Your task to perform on an android device: change notification settings in the gmail app Image 0: 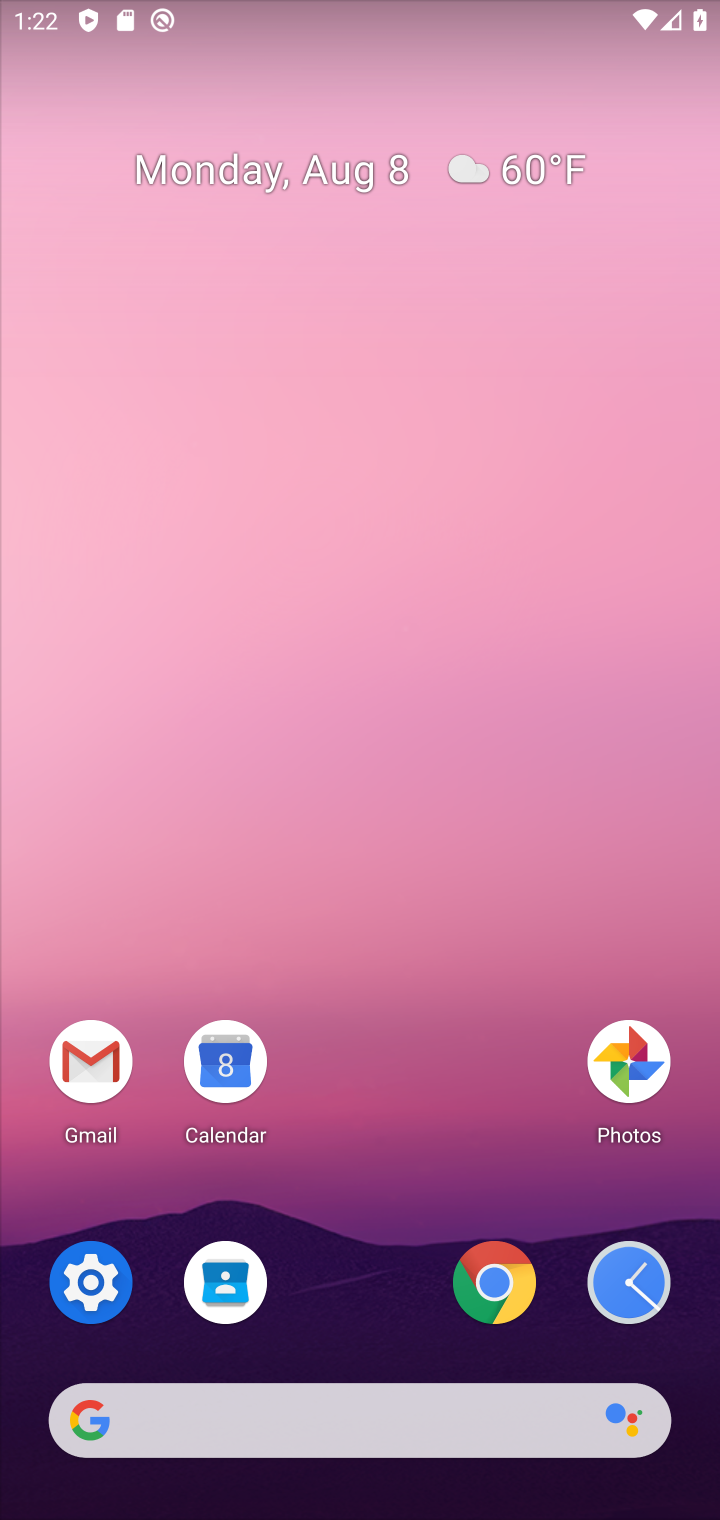
Step 0: click (73, 1058)
Your task to perform on an android device: change notification settings in the gmail app Image 1: 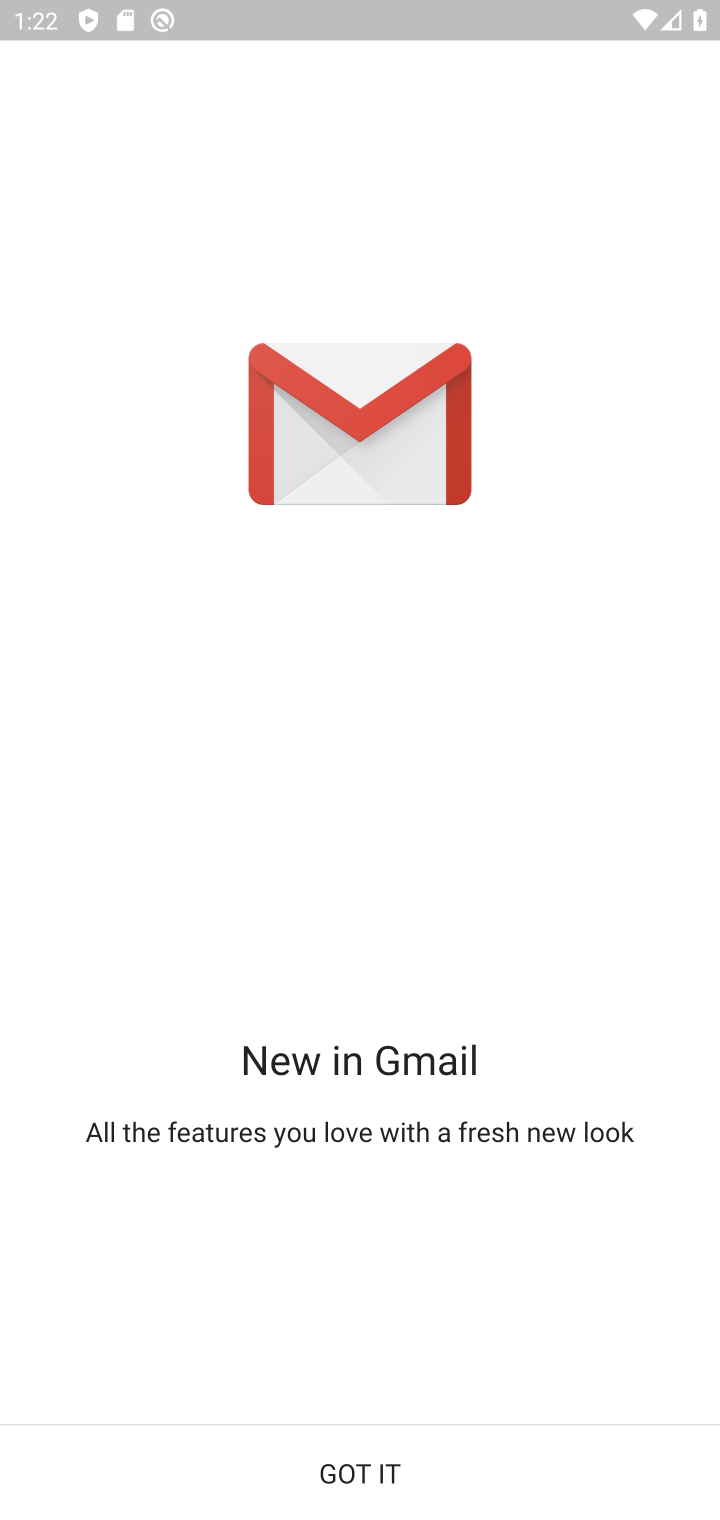
Step 1: click (366, 1465)
Your task to perform on an android device: change notification settings in the gmail app Image 2: 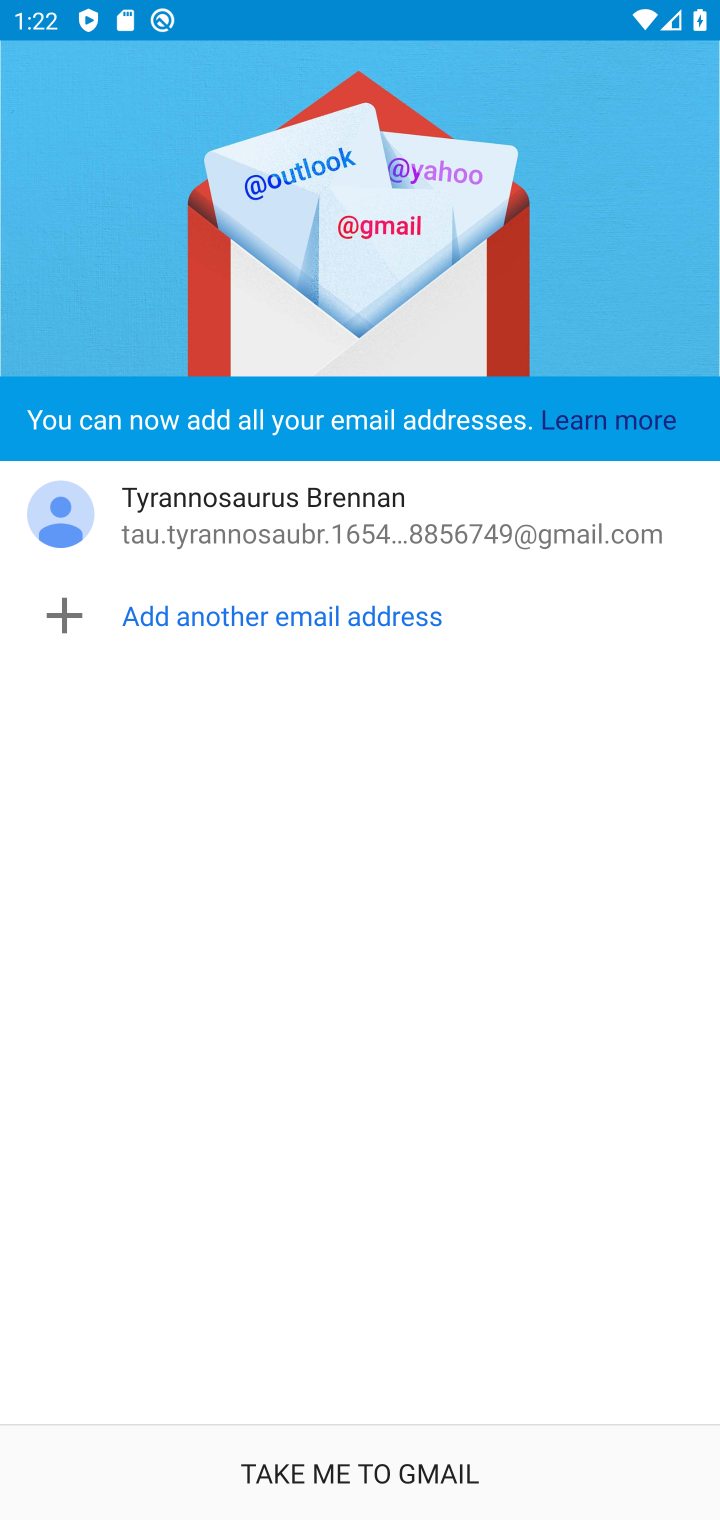
Step 2: click (366, 1465)
Your task to perform on an android device: change notification settings in the gmail app Image 3: 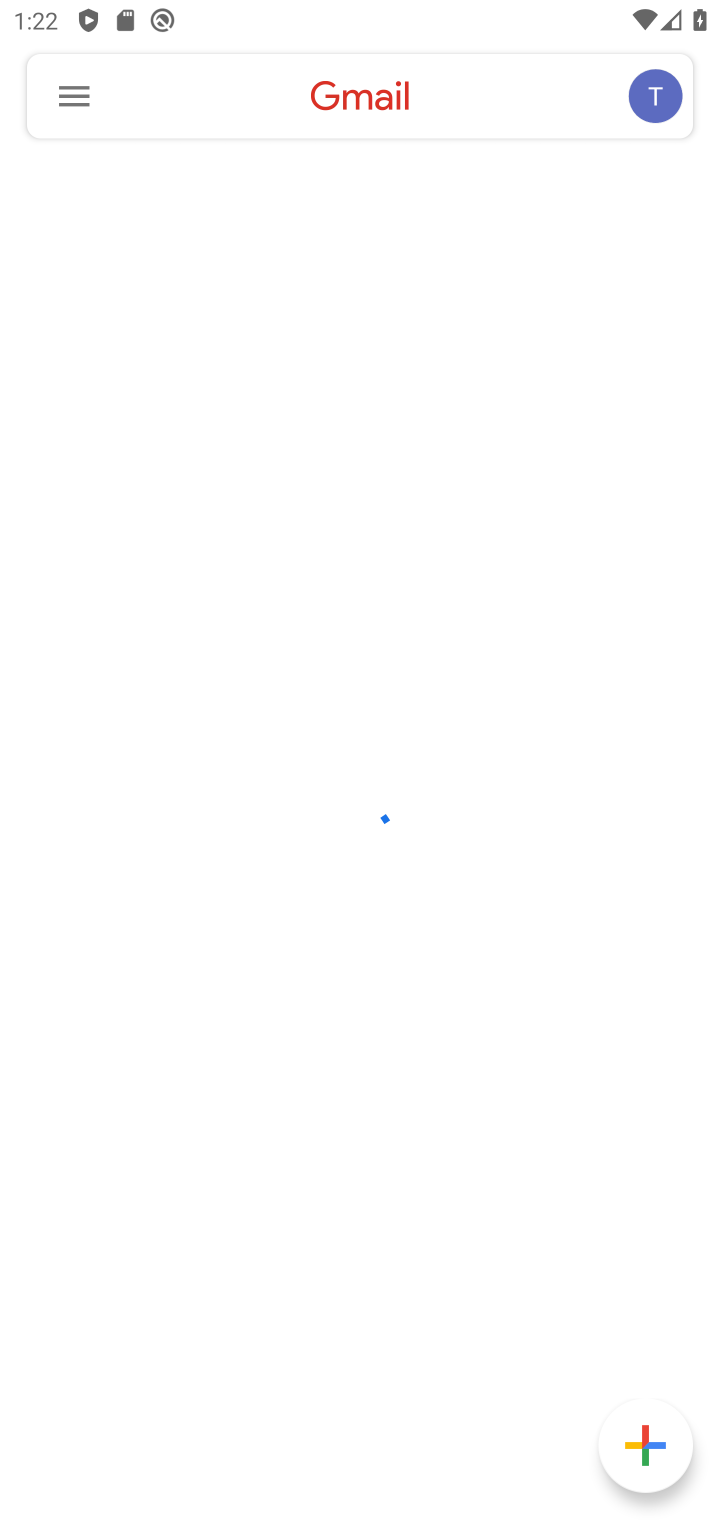
Step 3: click (71, 96)
Your task to perform on an android device: change notification settings in the gmail app Image 4: 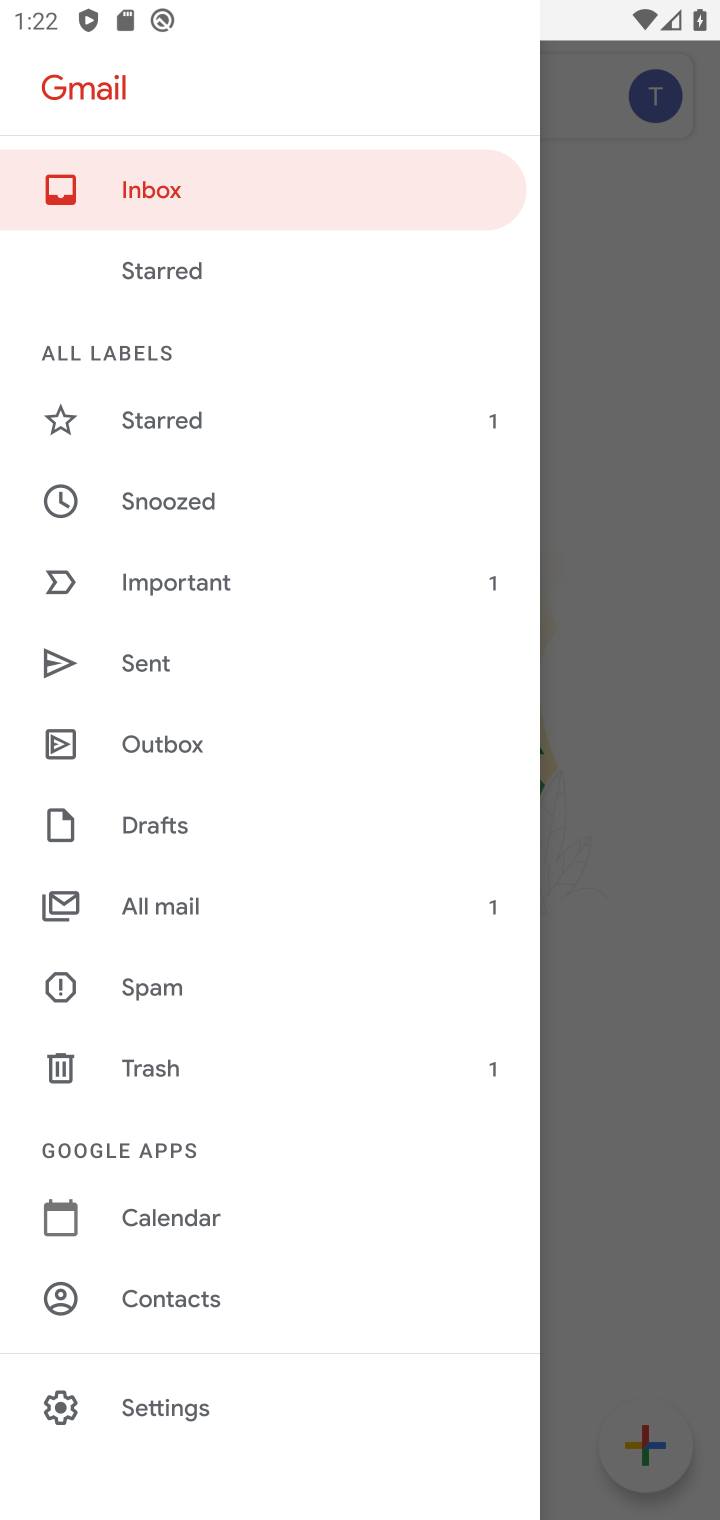
Step 4: click (154, 1401)
Your task to perform on an android device: change notification settings in the gmail app Image 5: 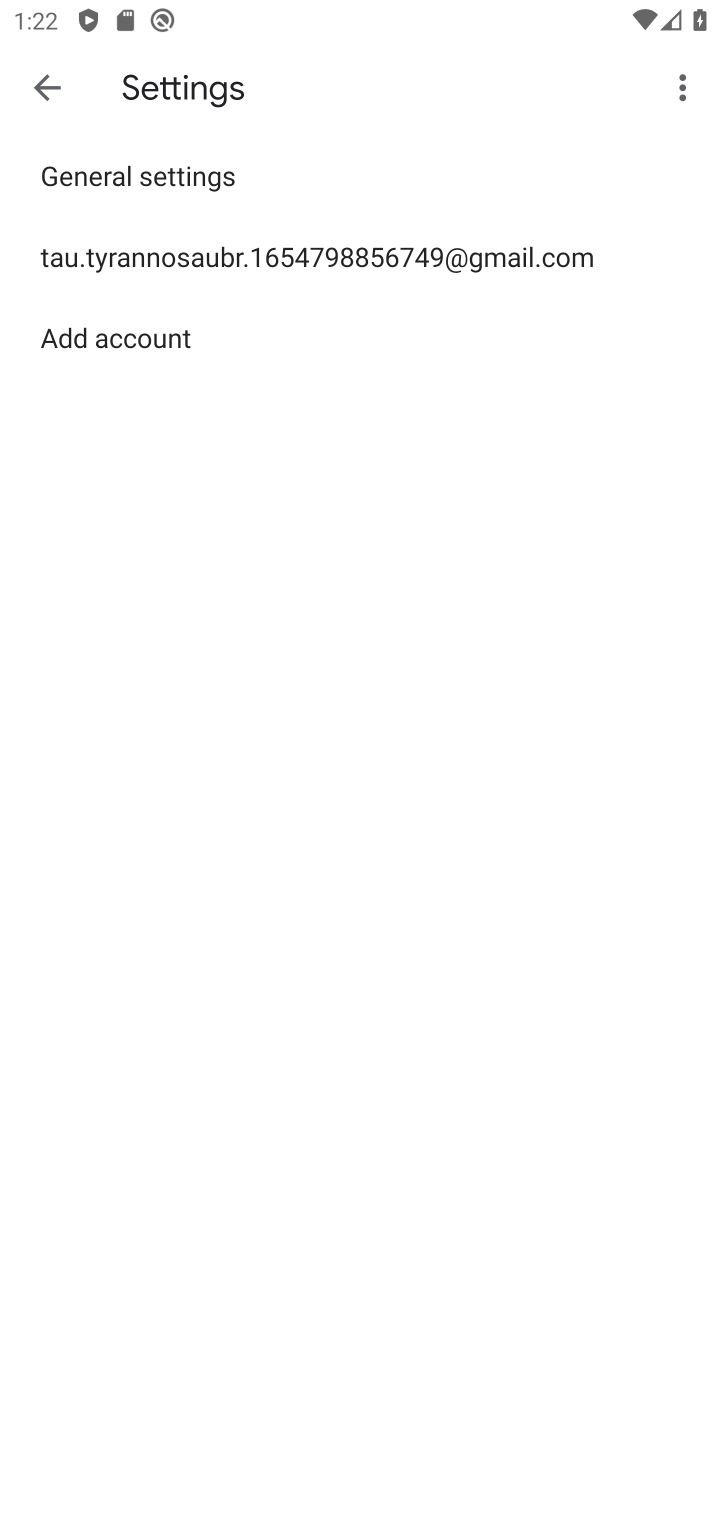
Step 5: click (143, 161)
Your task to perform on an android device: change notification settings in the gmail app Image 6: 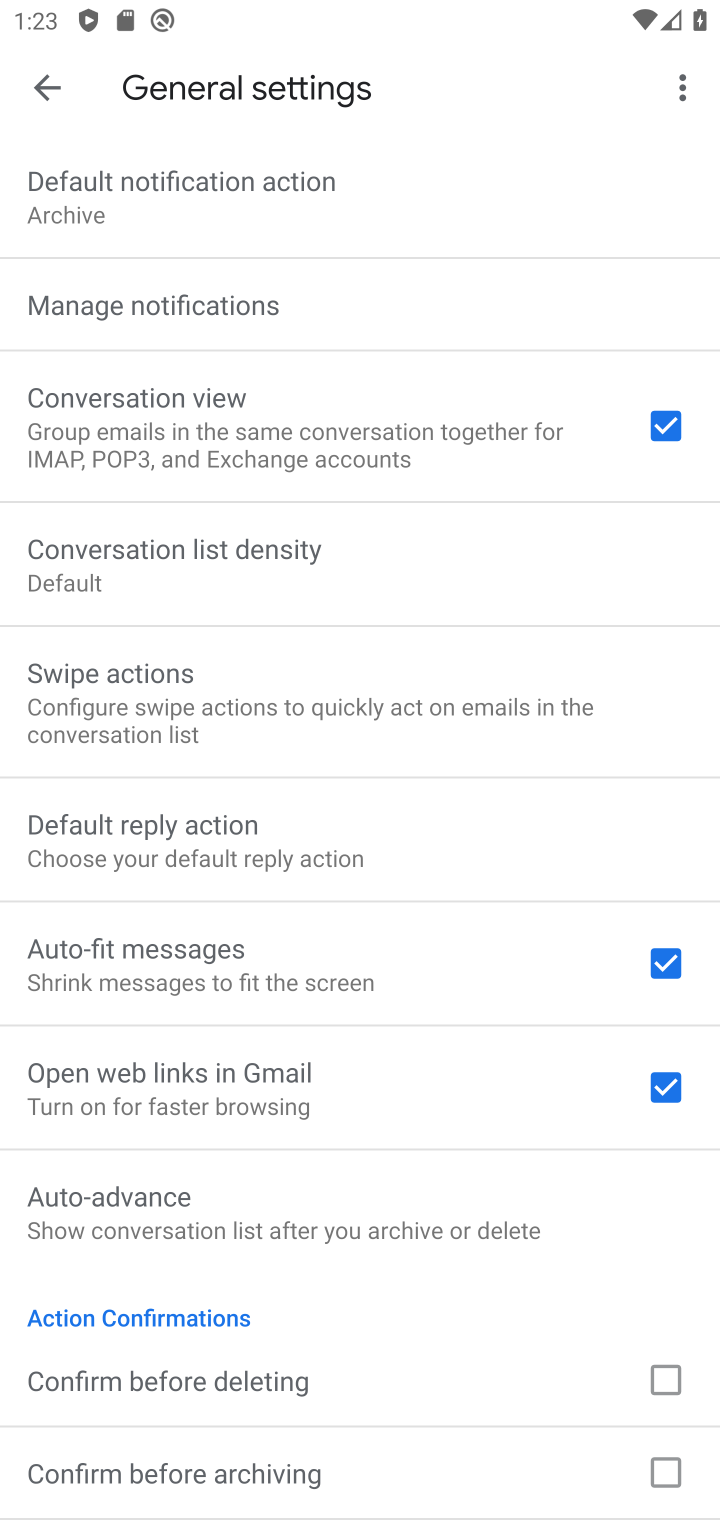
Step 6: click (196, 296)
Your task to perform on an android device: change notification settings in the gmail app Image 7: 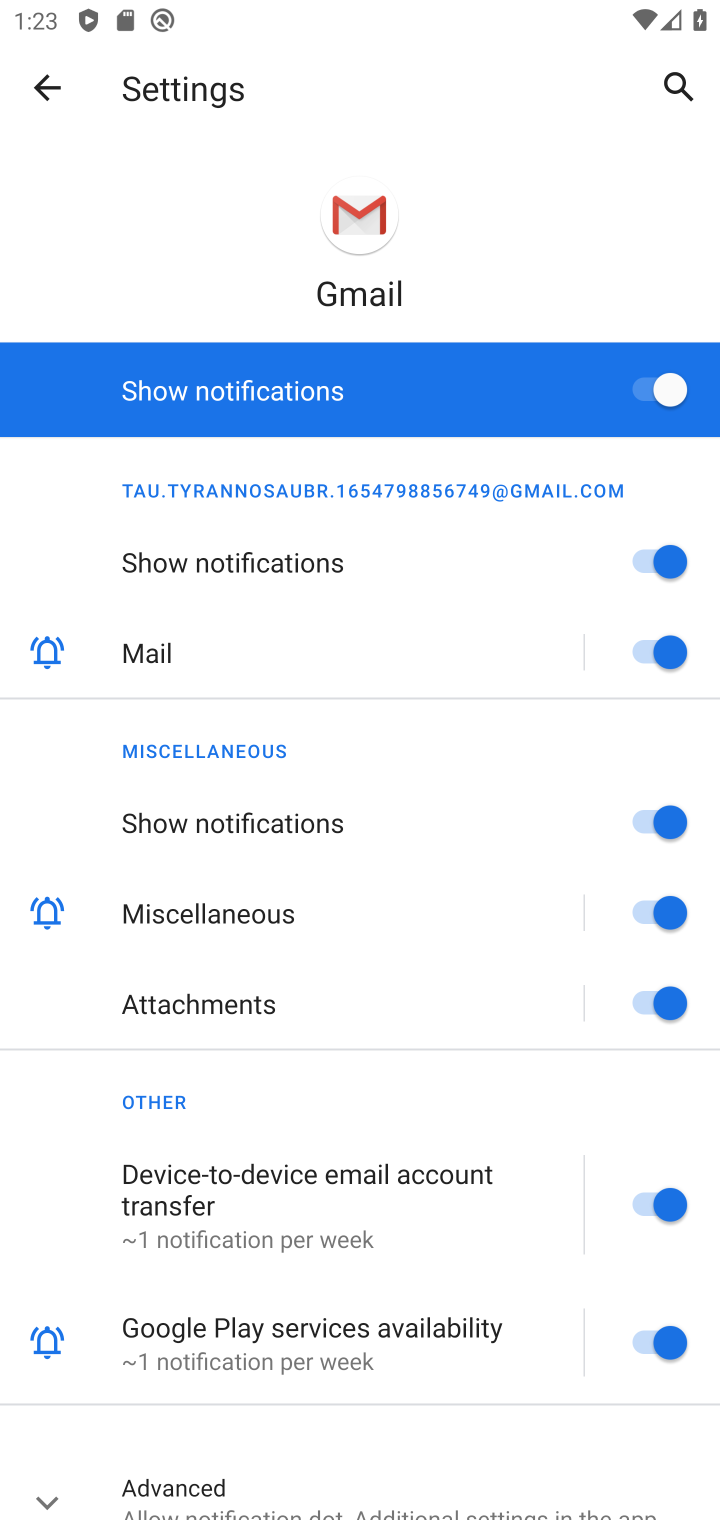
Step 7: click (656, 373)
Your task to perform on an android device: change notification settings in the gmail app Image 8: 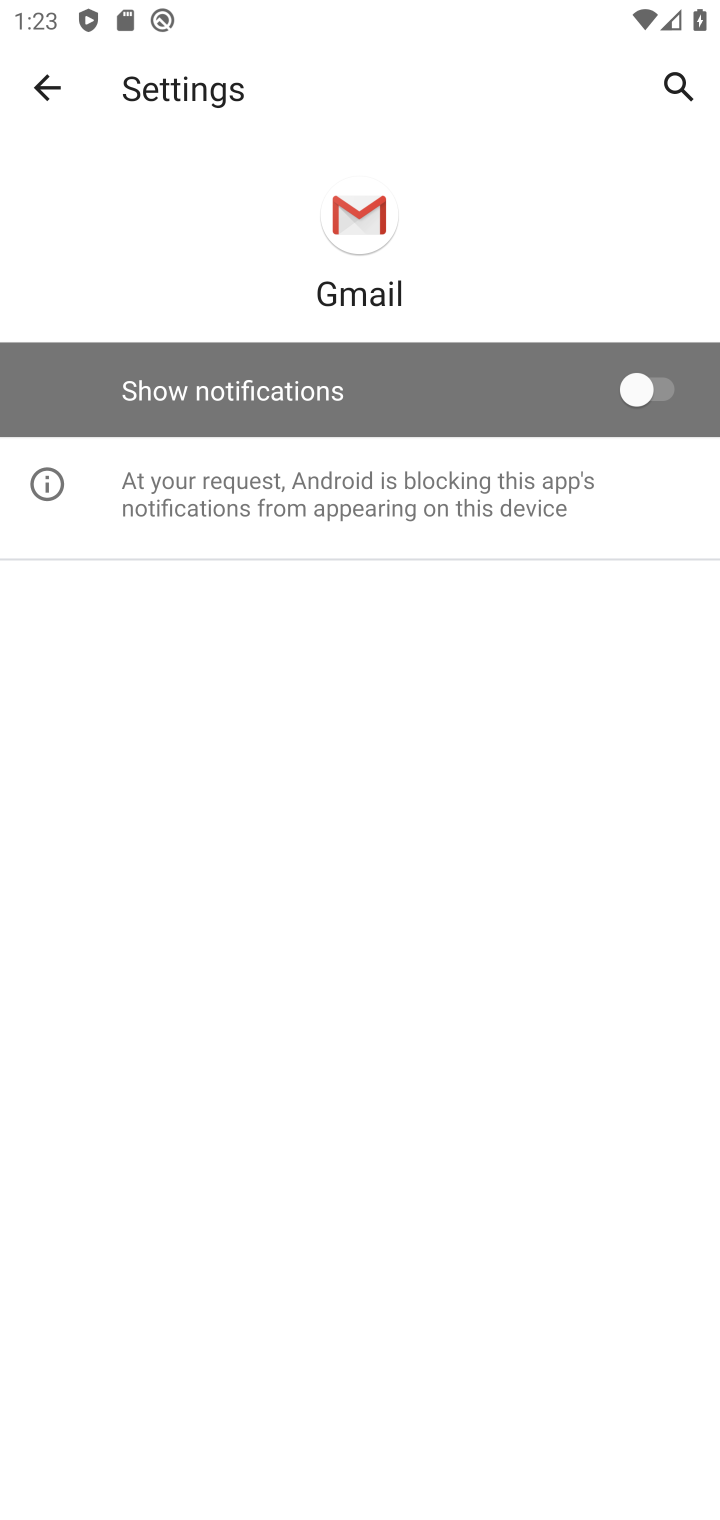
Step 8: task complete